Your task to perform on an android device: Turn on the flashlight Image 0: 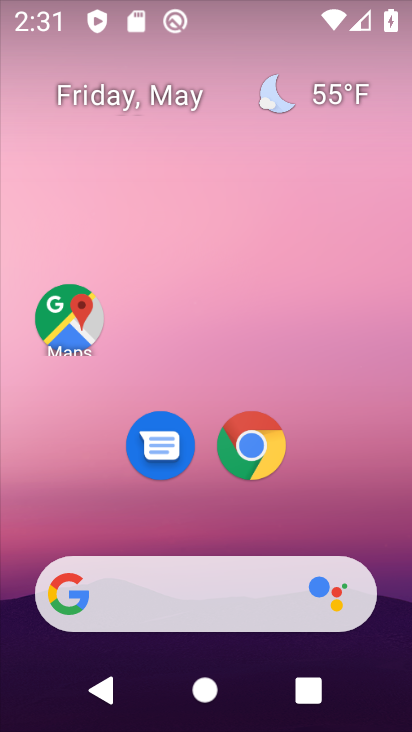
Step 0: drag from (338, 507) to (295, 172)
Your task to perform on an android device: Turn on the flashlight Image 1: 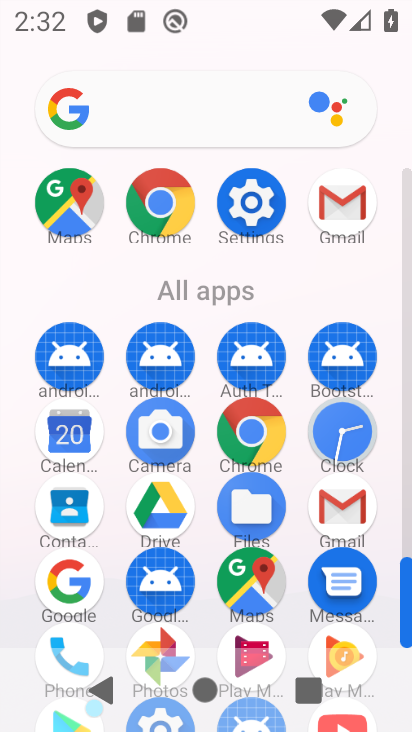
Step 1: click (242, 181)
Your task to perform on an android device: Turn on the flashlight Image 2: 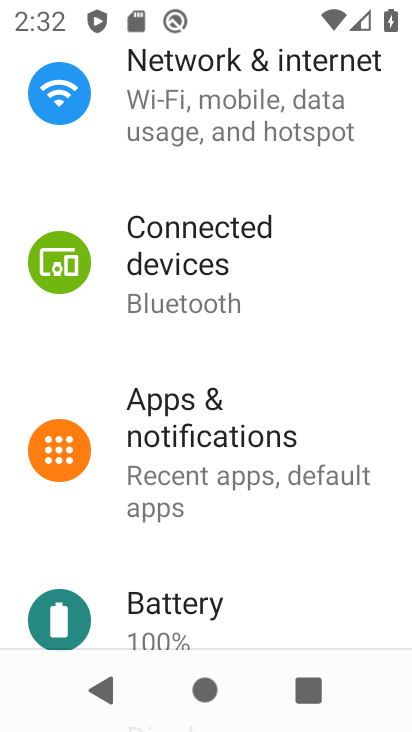
Step 2: drag from (282, 129) to (273, 542)
Your task to perform on an android device: Turn on the flashlight Image 3: 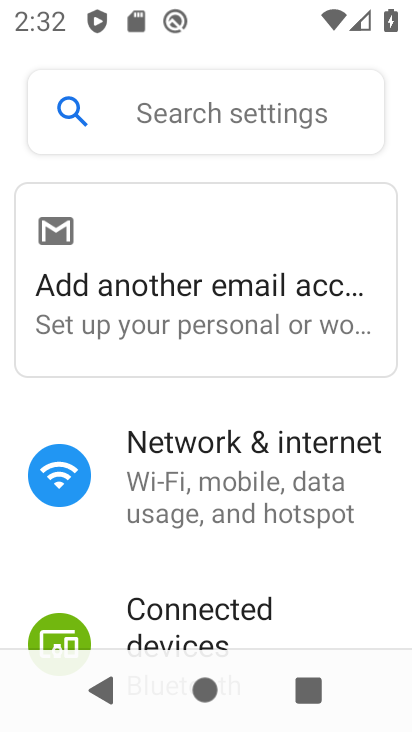
Step 3: click (196, 114)
Your task to perform on an android device: Turn on the flashlight Image 4: 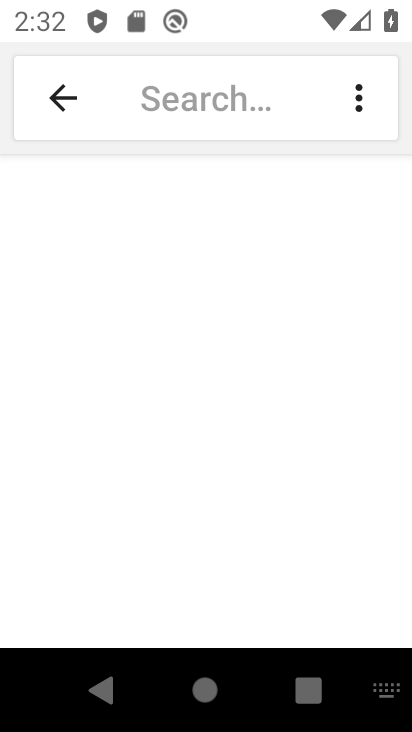
Step 4: type "flashlight"
Your task to perform on an android device: Turn on the flashlight Image 5: 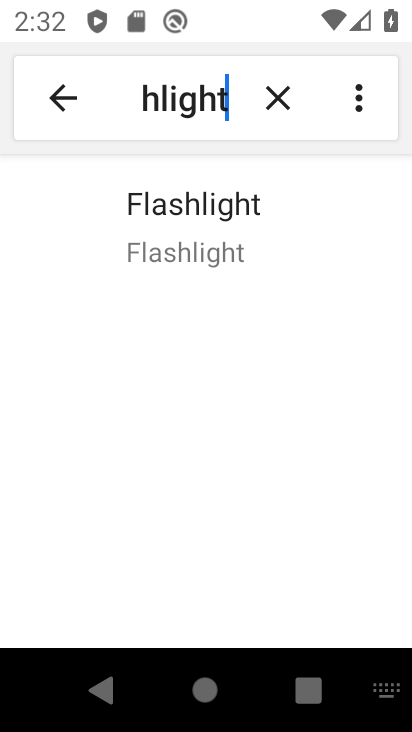
Step 5: click (278, 242)
Your task to perform on an android device: Turn on the flashlight Image 6: 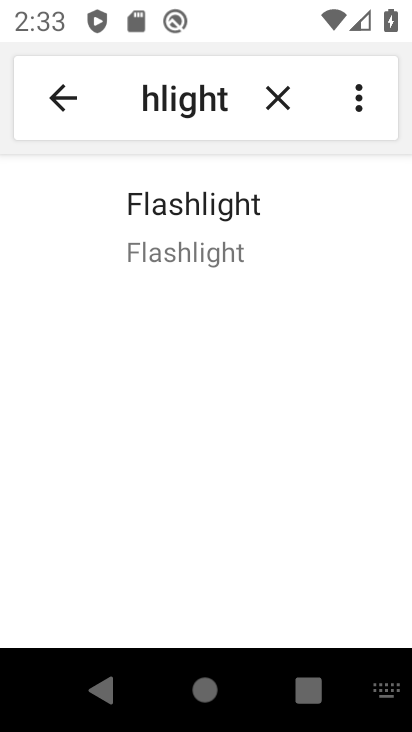
Step 6: task complete